Your task to perform on an android device: Open calendar and show me the fourth week of next month Image 0: 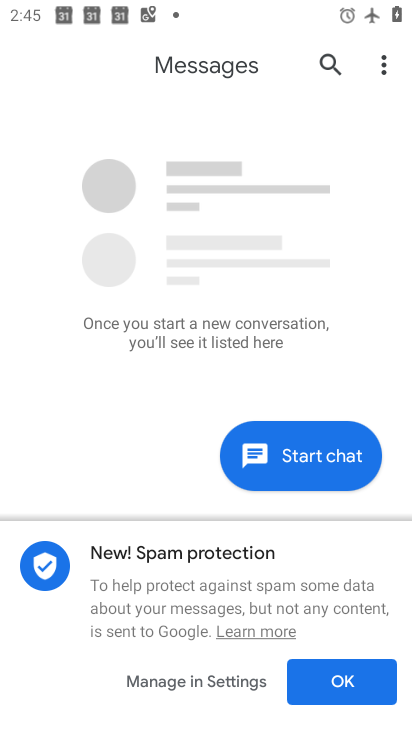
Step 0: press home button
Your task to perform on an android device: Open calendar and show me the fourth week of next month Image 1: 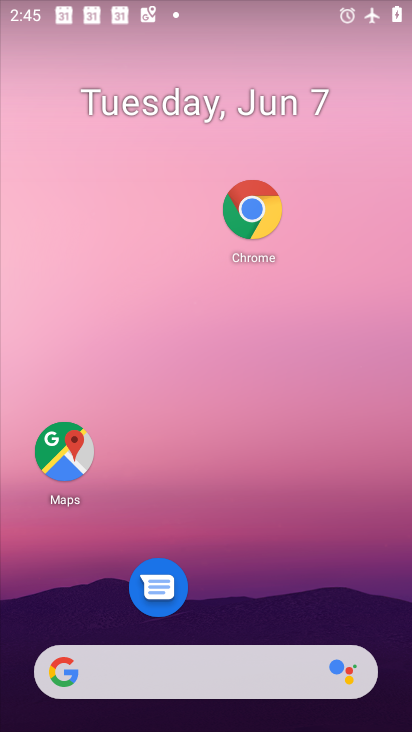
Step 1: drag from (209, 444) to (209, 345)
Your task to perform on an android device: Open calendar and show me the fourth week of next month Image 2: 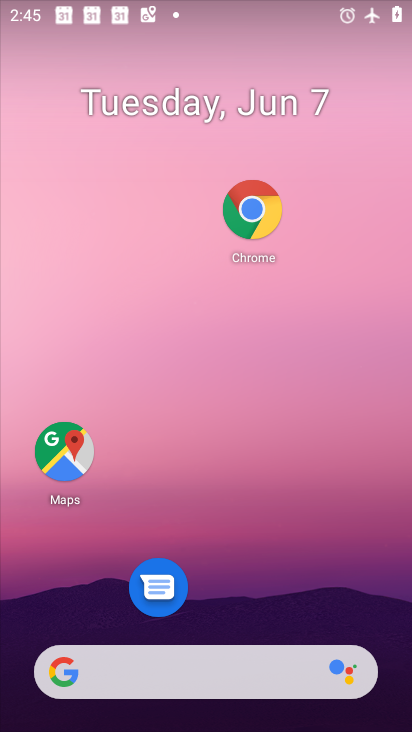
Step 2: drag from (193, 538) to (260, 157)
Your task to perform on an android device: Open calendar and show me the fourth week of next month Image 3: 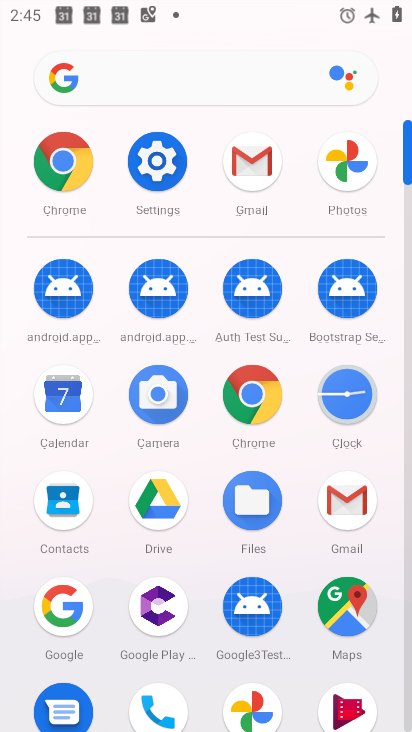
Step 3: click (82, 419)
Your task to perform on an android device: Open calendar and show me the fourth week of next month Image 4: 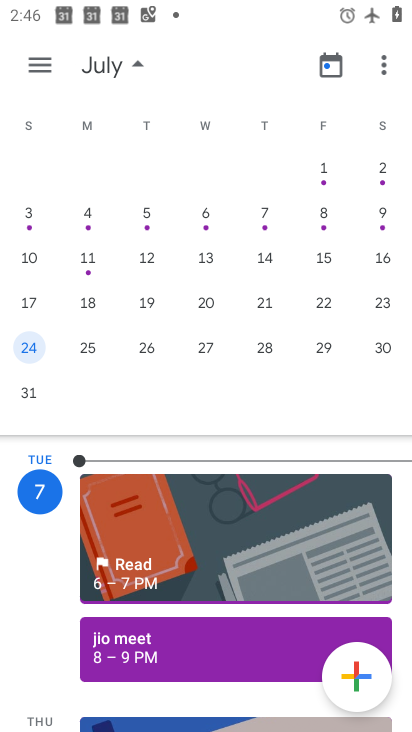
Step 4: click (38, 346)
Your task to perform on an android device: Open calendar and show me the fourth week of next month Image 5: 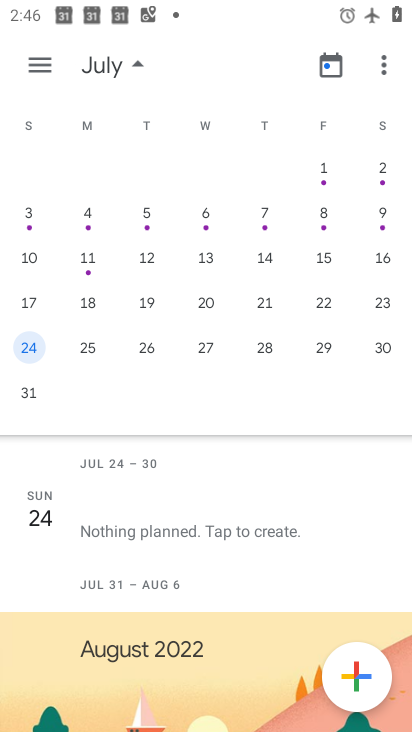
Step 5: task complete